Your task to perform on an android device: Do I have any events tomorrow? Image 0: 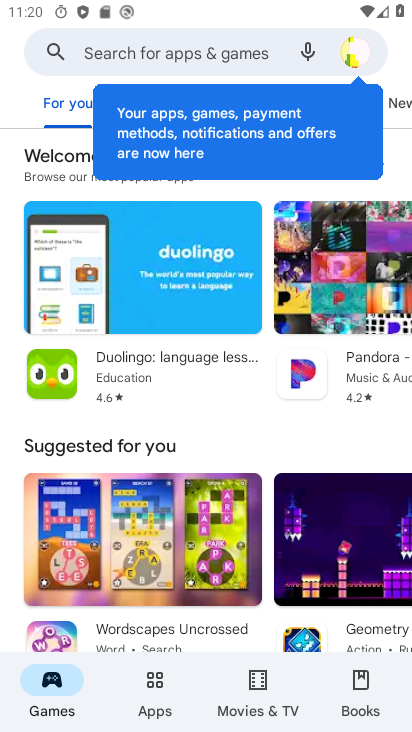
Step 0: press home button
Your task to perform on an android device: Do I have any events tomorrow? Image 1: 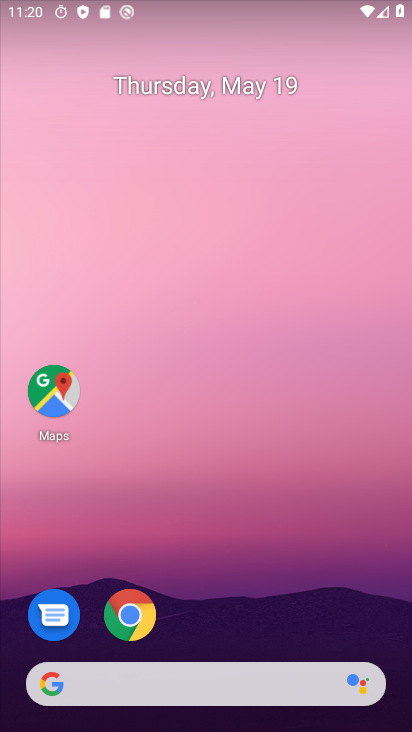
Step 1: drag from (300, 557) to (249, 168)
Your task to perform on an android device: Do I have any events tomorrow? Image 2: 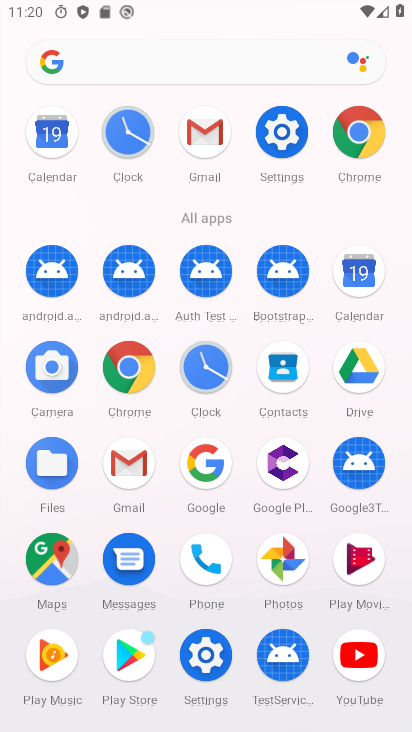
Step 2: click (357, 280)
Your task to perform on an android device: Do I have any events tomorrow? Image 3: 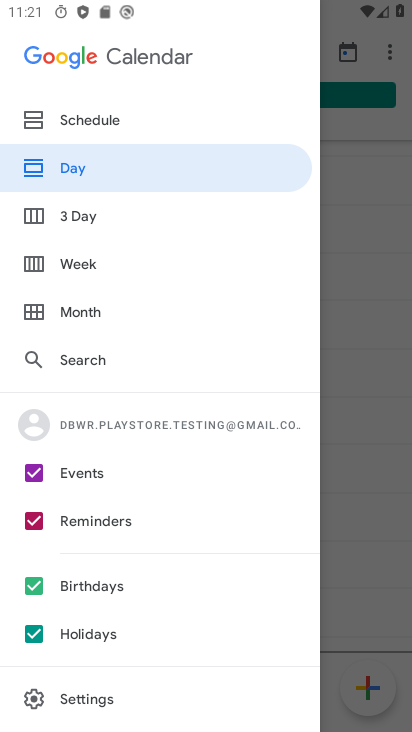
Step 3: click (342, 272)
Your task to perform on an android device: Do I have any events tomorrow? Image 4: 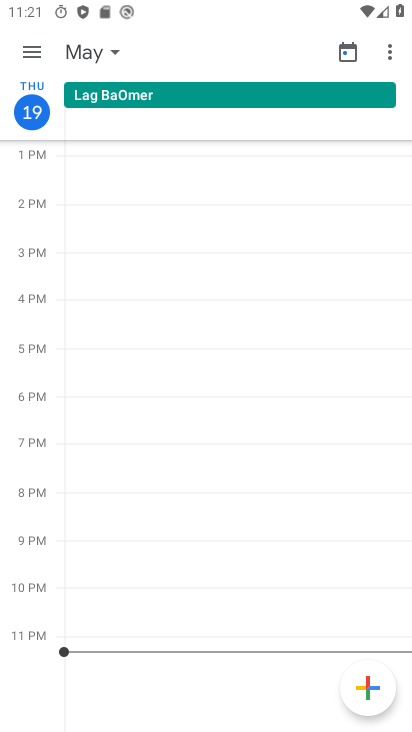
Step 4: click (114, 55)
Your task to perform on an android device: Do I have any events tomorrow? Image 5: 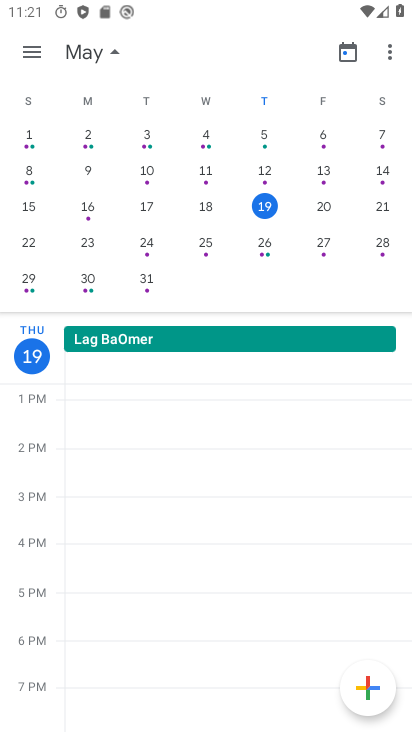
Step 5: click (321, 203)
Your task to perform on an android device: Do I have any events tomorrow? Image 6: 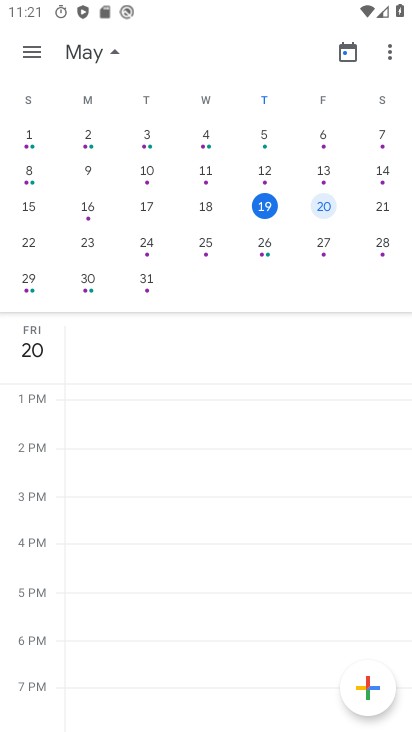
Step 6: task complete